Your task to perform on an android device: Go to Android settings Image 0: 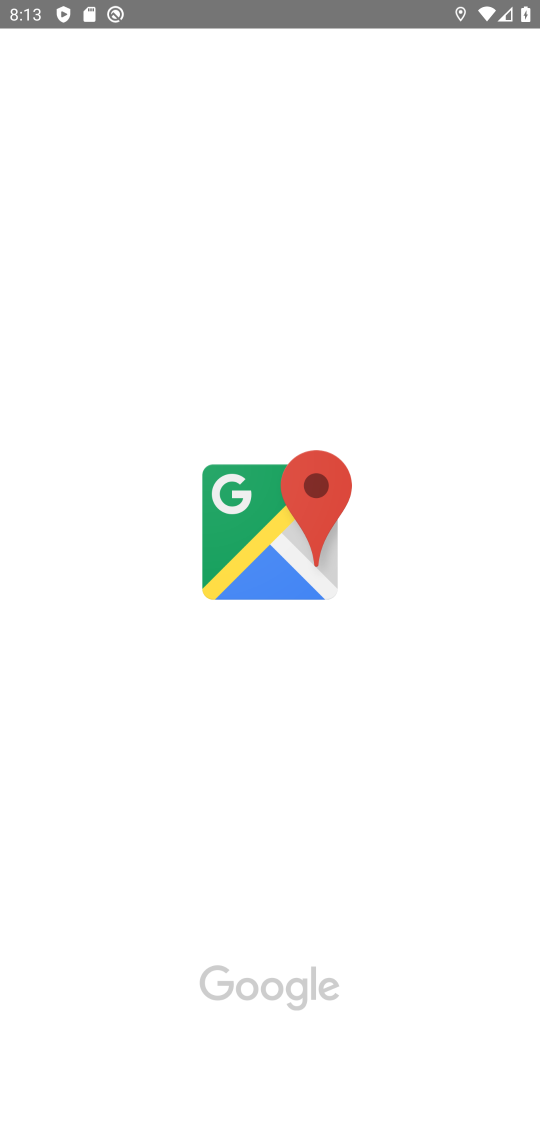
Step 0: press home button
Your task to perform on an android device: Go to Android settings Image 1: 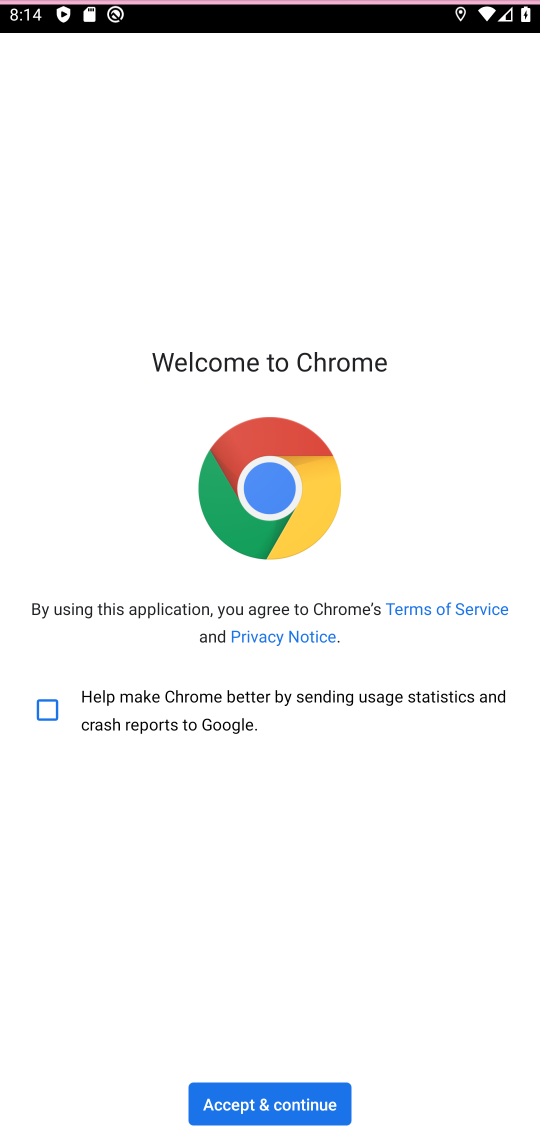
Step 1: drag from (426, 433) to (500, 266)
Your task to perform on an android device: Go to Android settings Image 2: 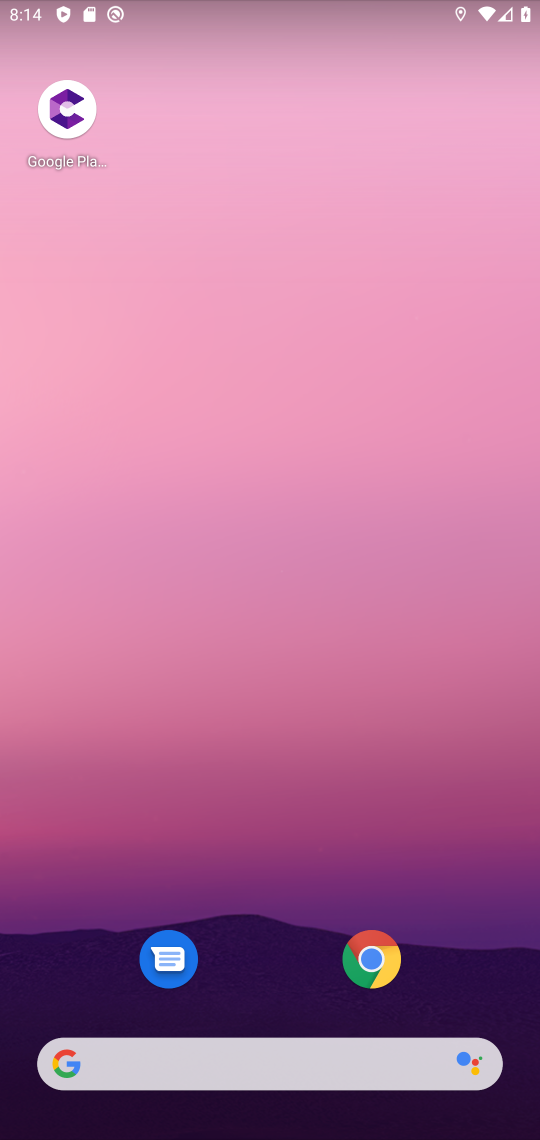
Step 2: drag from (265, 1003) to (113, 926)
Your task to perform on an android device: Go to Android settings Image 3: 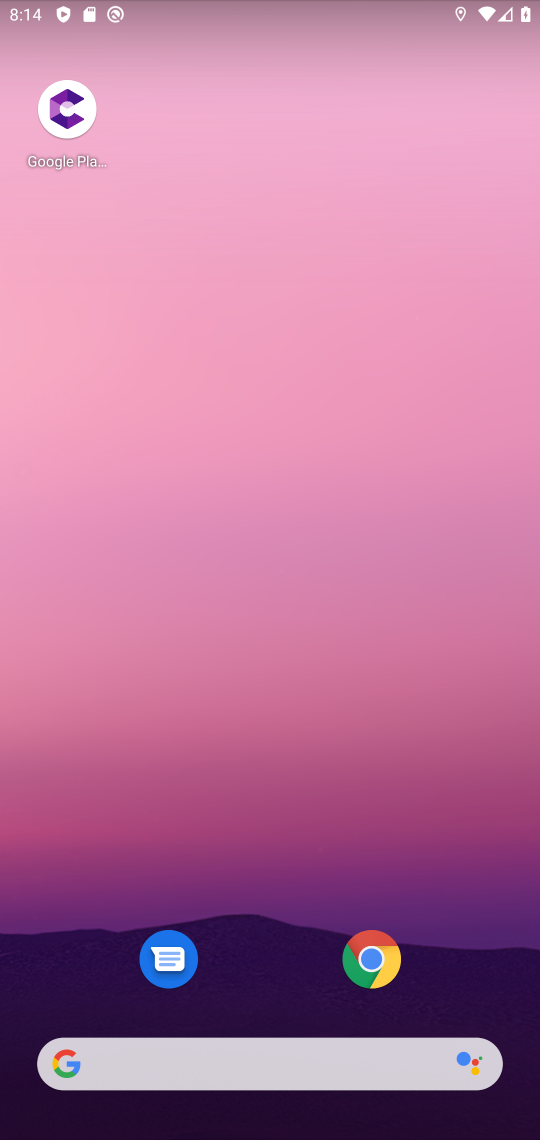
Step 3: drag from (248, 932) to (343, 126)
Your task to perform on an android device: Go to Android settings Image 4: 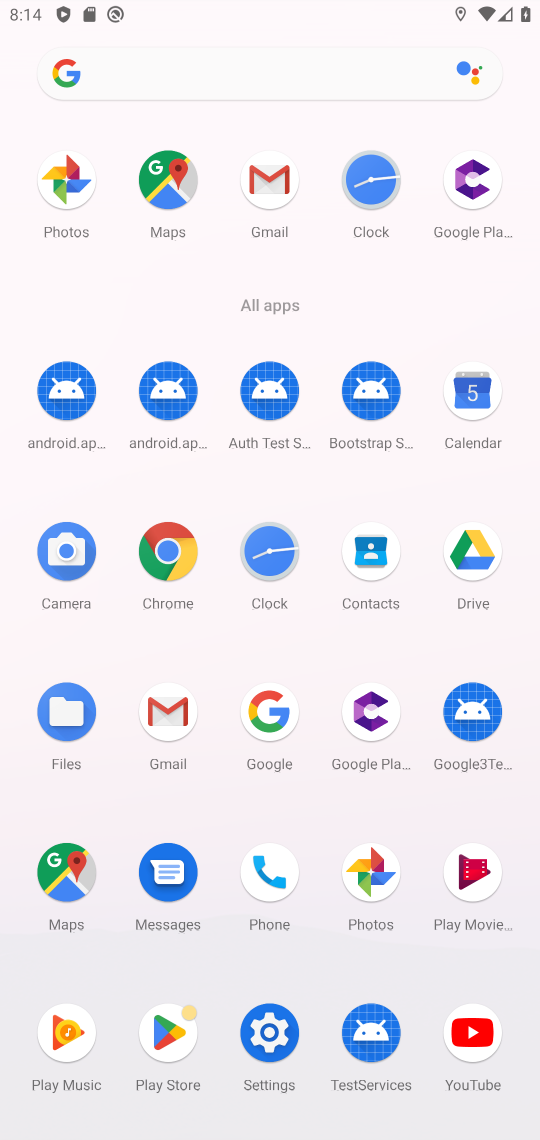
Step 4: click (272, 1016)
Your task to perform on an android device: Go to Android settings Image 5: 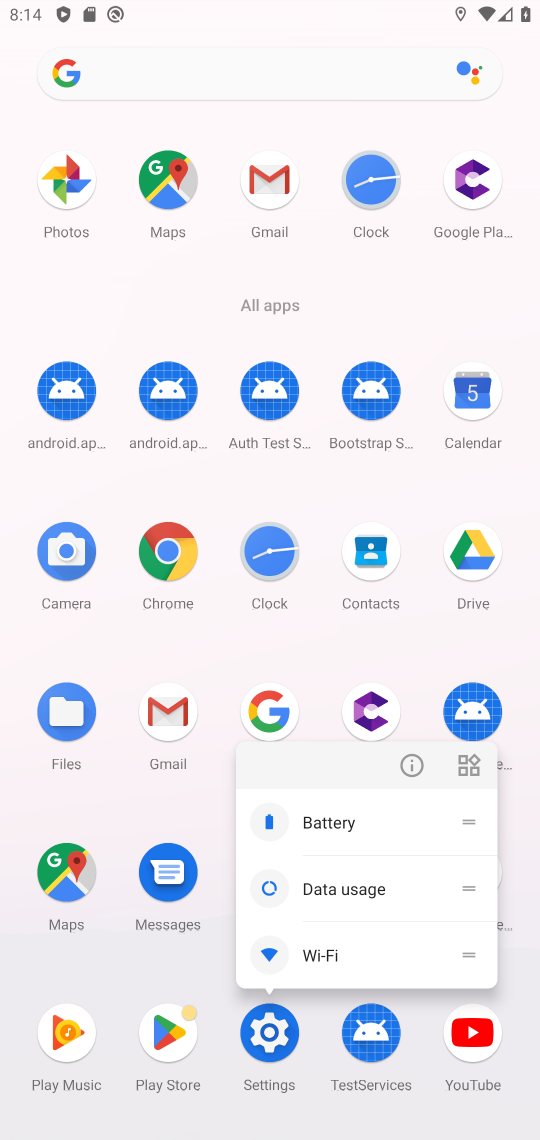
Step 5: click (403, 769)
Your task to perform on an android device: Go to Android settings Image 6: 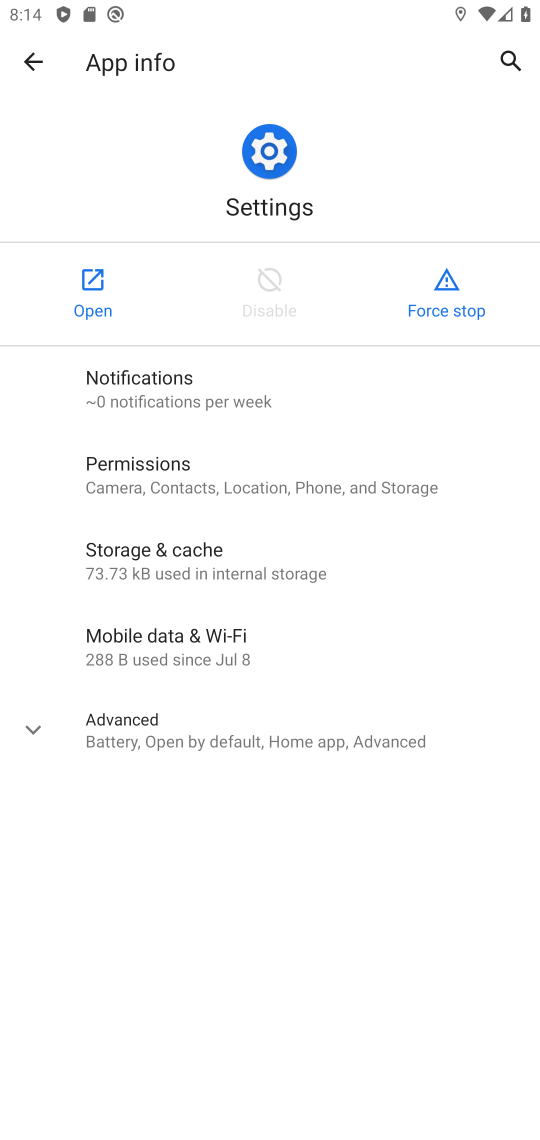
Step 6: click (86, 286)
Your task to perform on an android device: Go to Android settings Image 7: 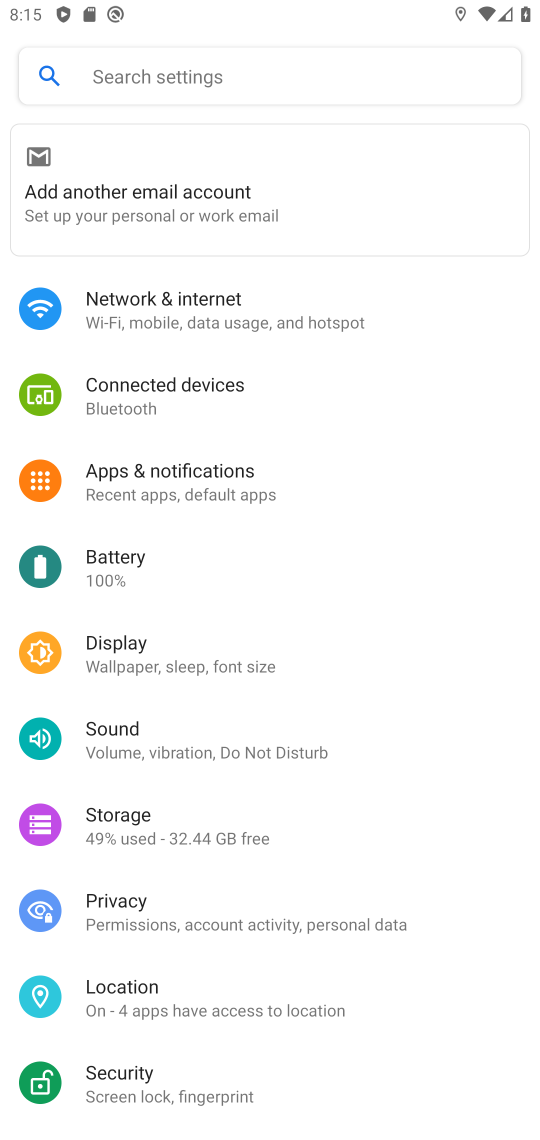
Step 7: drag from (280, 991) to (240, 360)
Your task to perform on an android device: Go to Android settings Image 8: 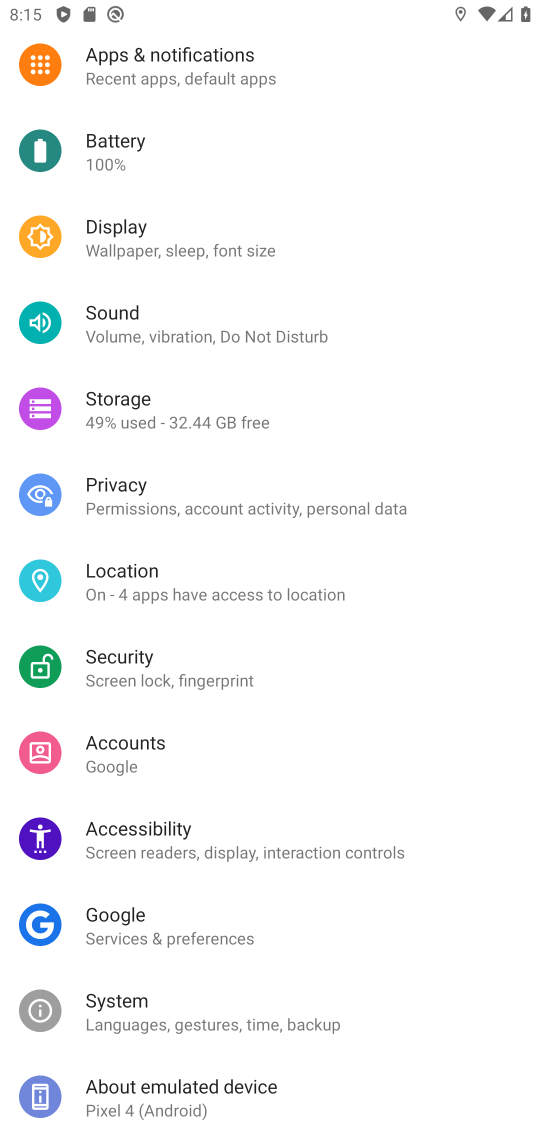
Step 8: drag from (199, 982) to (272, 234)
Your task to perform on an android device: Go to Android settings Image 9: 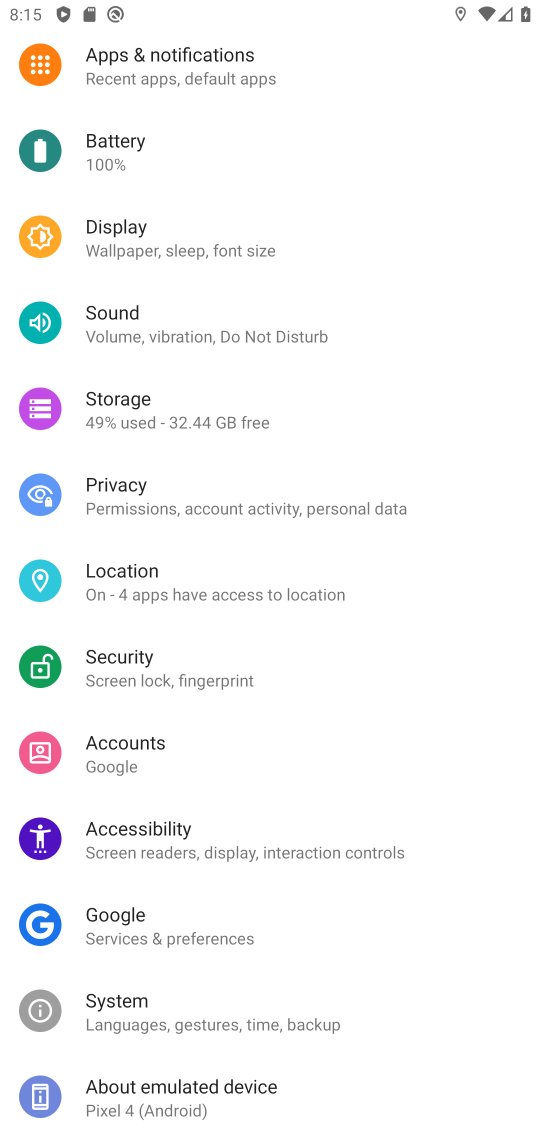
Step 9: click (197, 1093)
Your task to perform on an android device: Go to Android settings Image 10: 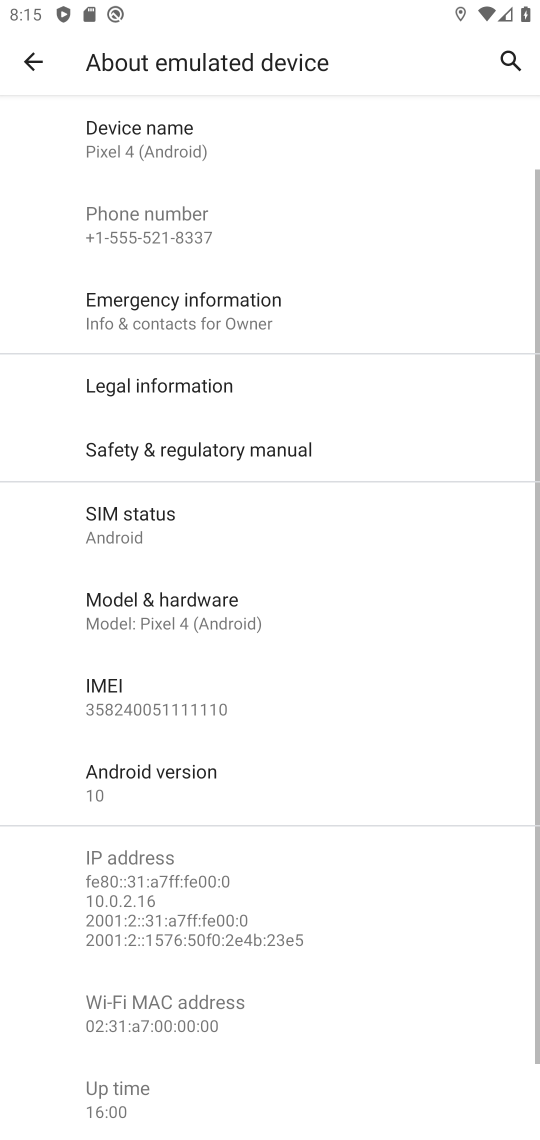
Step 10: click (229, 798)
Your task to perform on an android device: Go to Android settings Image 11: 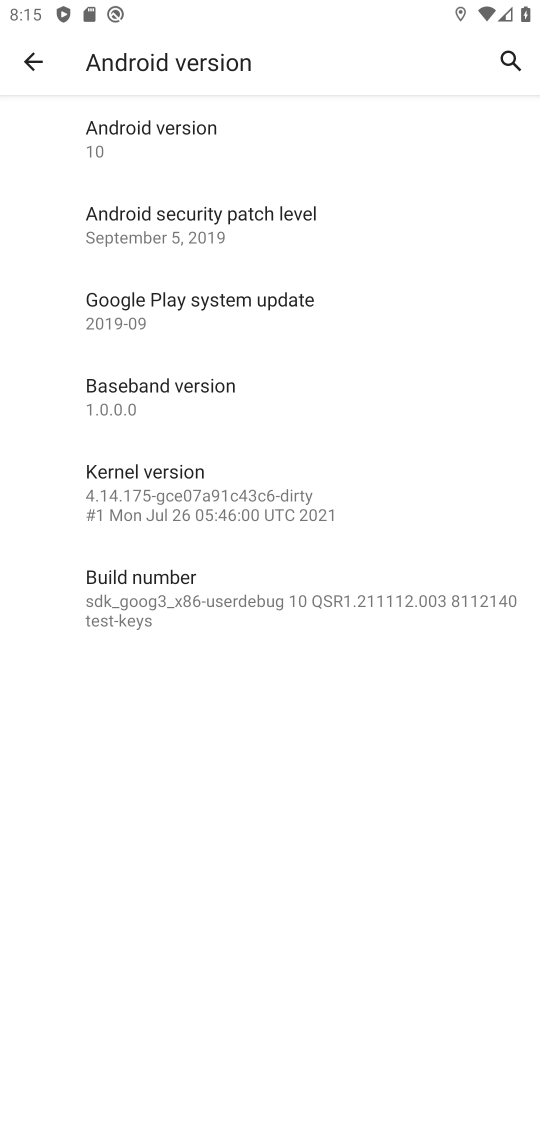
Step 11: drag from (310, 976) to (381, 294)
Your task to perform on an android device: Go to Android settings Image 12: 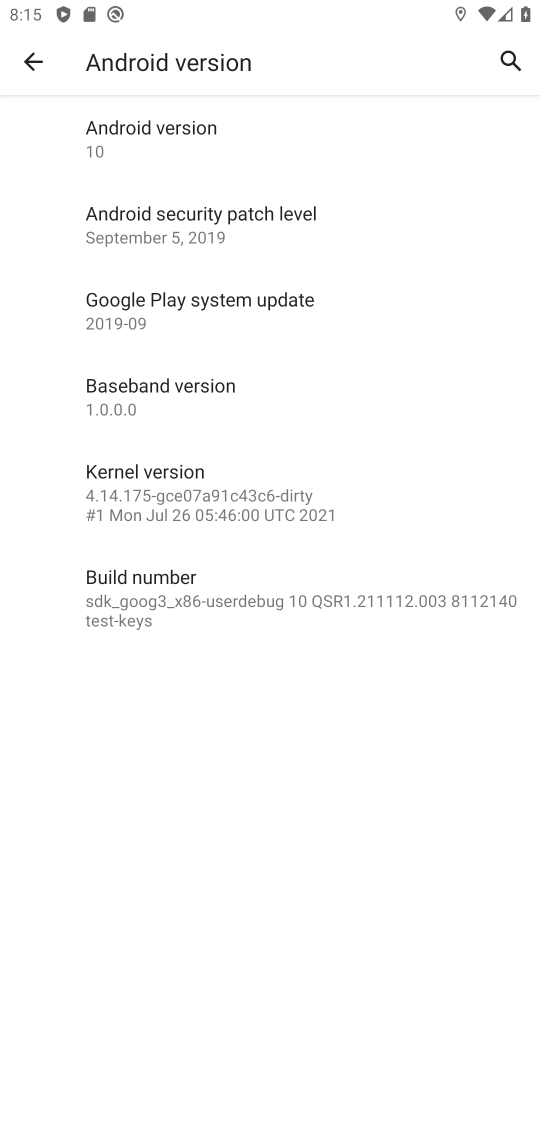
Step 12: click (273, 149)
Your task to perform on an android device: Go to Android settings Image 13: 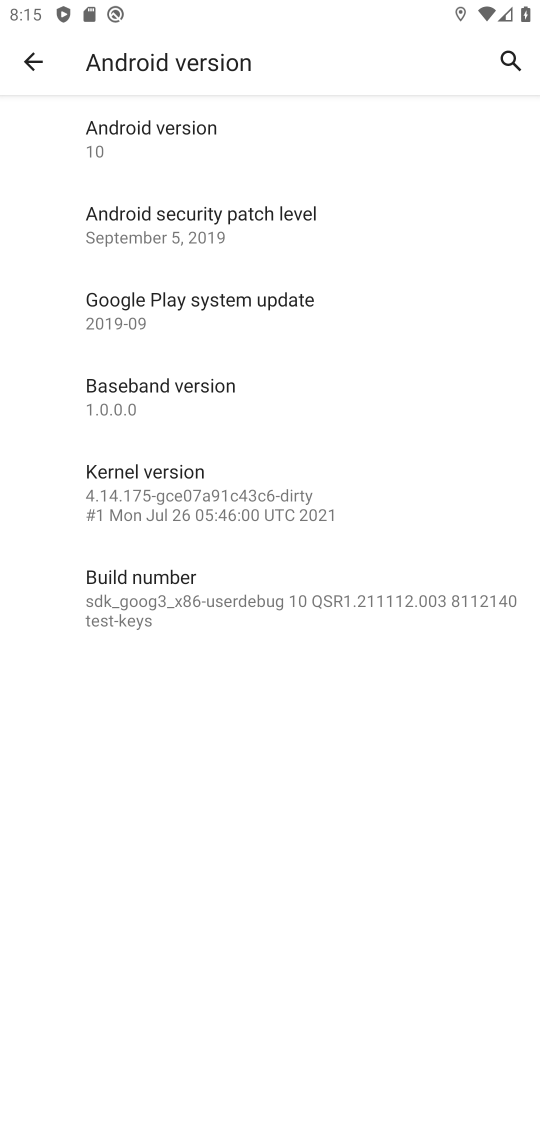
Step 13: task complete